Your task to perform on an android device: read, delete, or share a saved page in the chrome app Image 0: 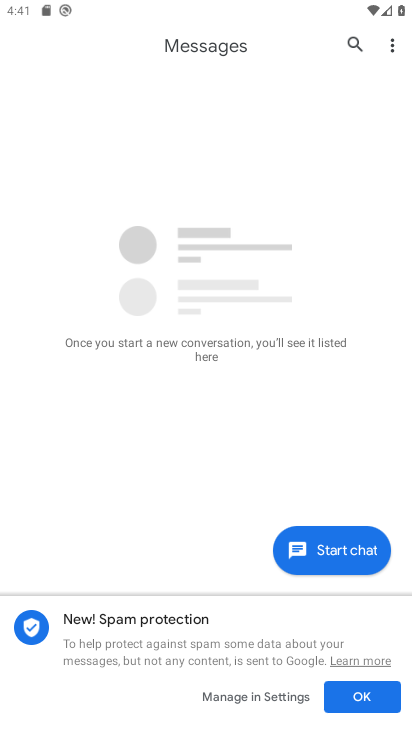
Step 0: press home button
Your task to perform on an android device: read, delete, or share a saved page in the chrome app Image 1: 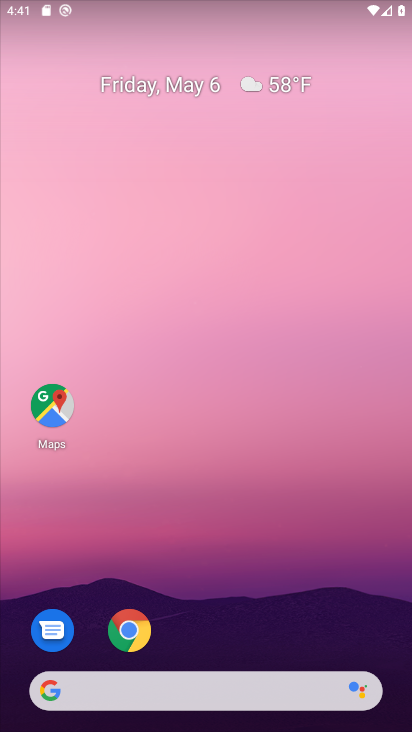
Step 1: click (125, 622)
Your task to perform on an android device: read, delete, or share a saved page in the chrome app Image 2: 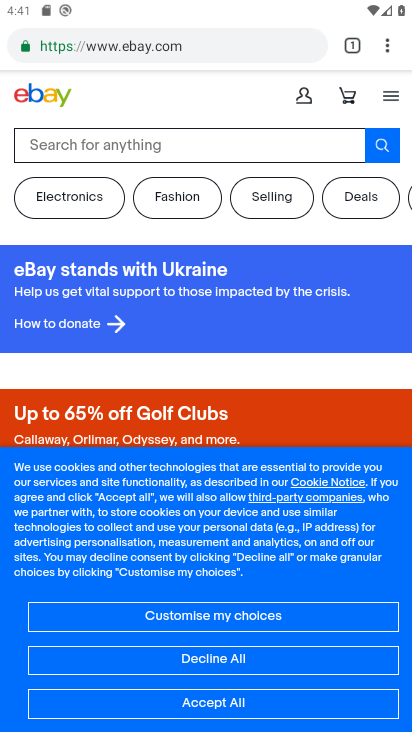
Step 2: click (382, 45)
Your task to perform on an android device: read, delete, or share a saved page in the chrome app Image 3: 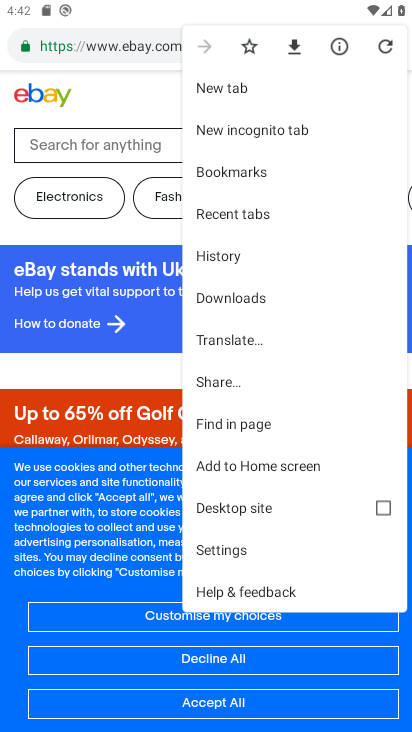
Step 3: click (257, 303)
Your task to perform on an android device: read, delete, or share a saved page in the chrome app Image 4: 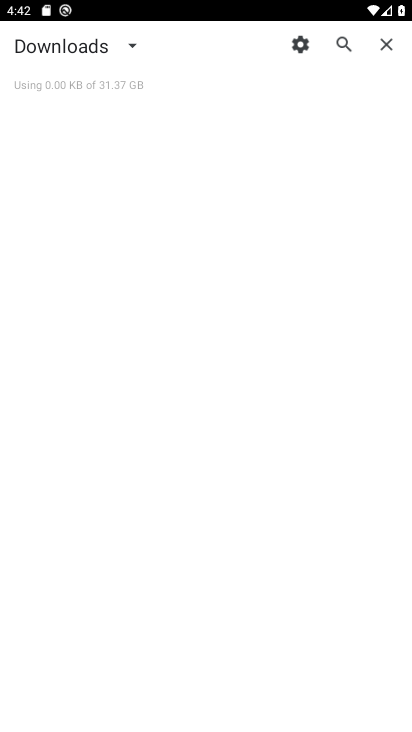
Step 4: click (133, 41)
Your task to perform on an android device: read, delete, or share a saved page in the chrome app Image 5: 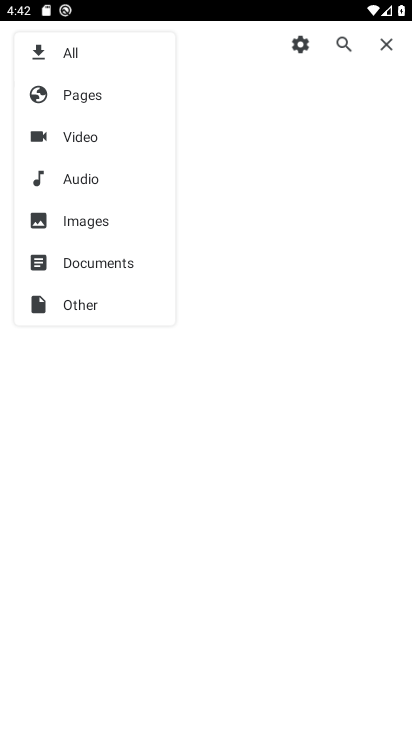
Step 5: click (94, 98)
Your task to perform on an android device: read, delete, or share a saved page in the chrome app Image 6: 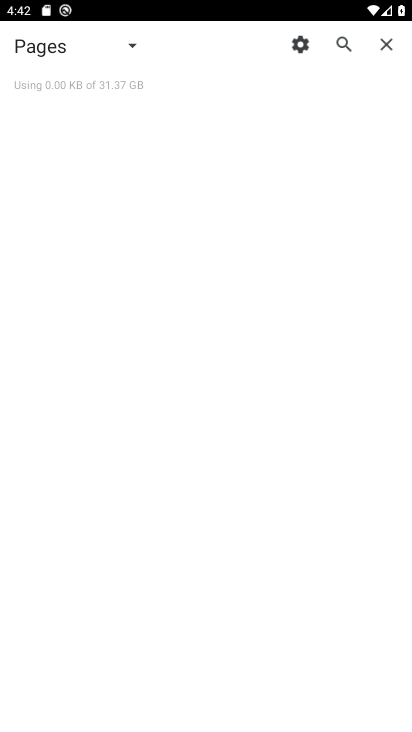
Step 6: task complete